Your task to perform on an android device: What's on my calendar tomorrow? Image 0: 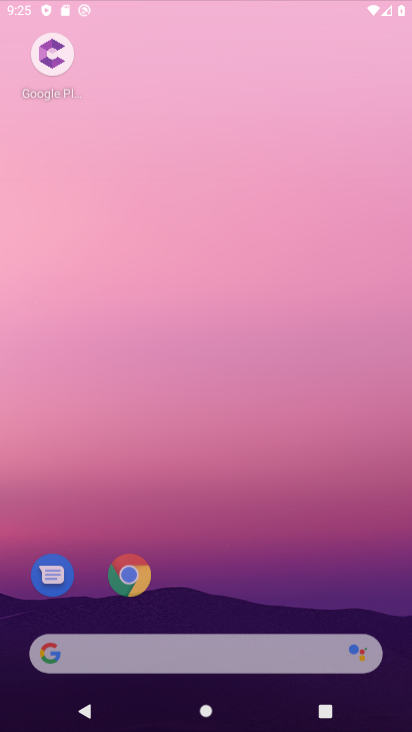
Step 0: drag from (352, 276) to (355, 119)
Your task to perform on an android device: What's on my calendar tomorrow? Image 1: 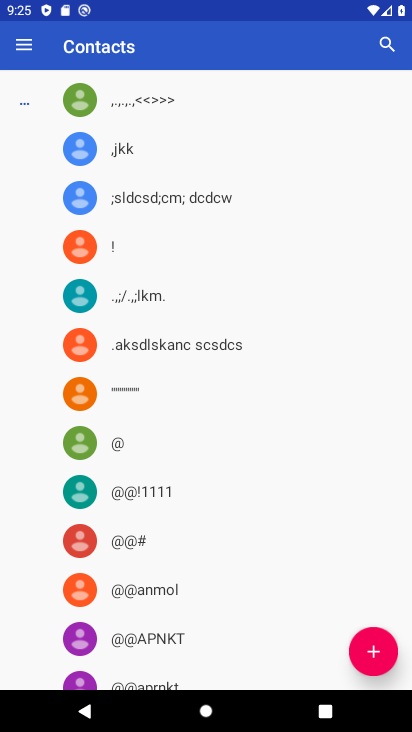
Step 1: press home button
Your task to perform on an android device: What's on my calendar tomorrow? Image 2: 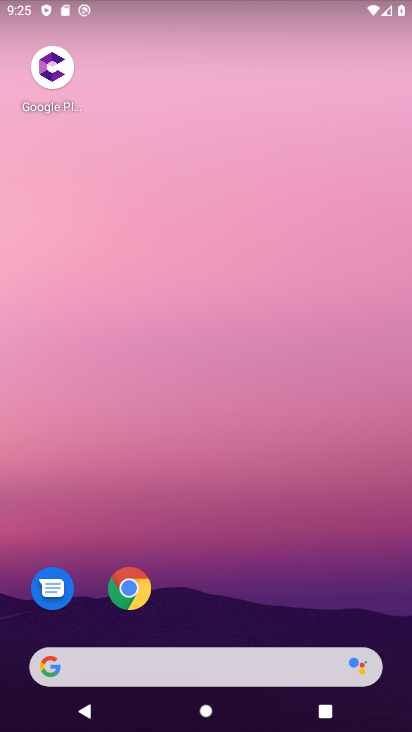
Step 2: drag from (344, 618) to (358, 229)
Your task to perform on an android device: What's on my calendar tomorrow? Image 3: 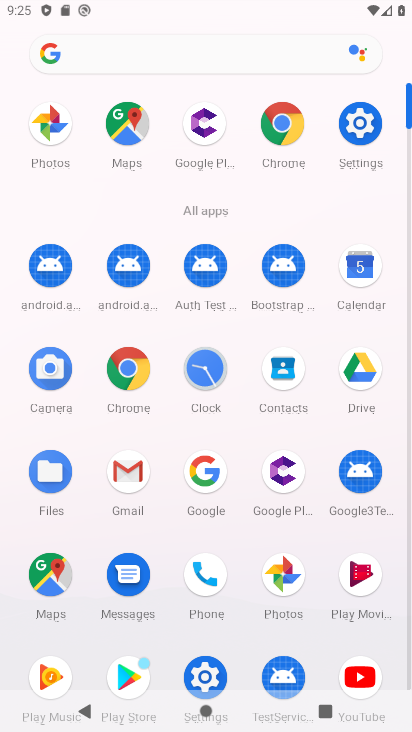
Step 3: click (355, 275)
Your task to perform on an android device: What's on my calendar tomorrow? Image 4: 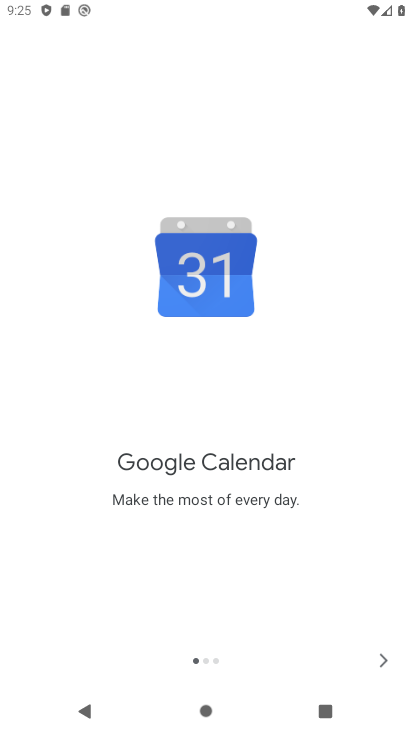
Step 4: click (385, 667)
Your task to perform on an android device: What's on my calendar tomorrow? Image 5: 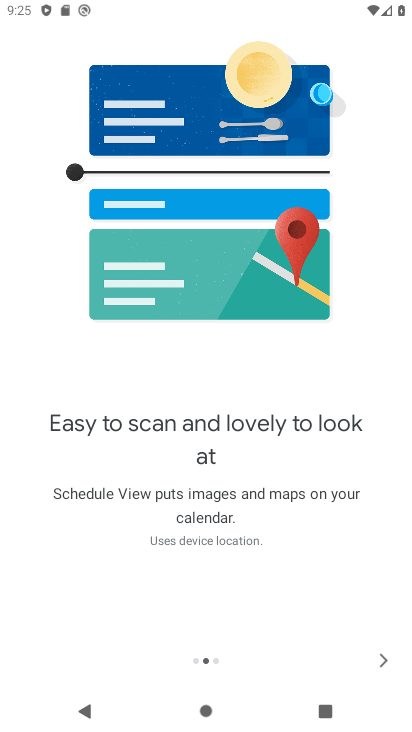
Step 5: click (385, 667)
Your task to perform on an android device: What's on my calendar tomorrow? Image 6: 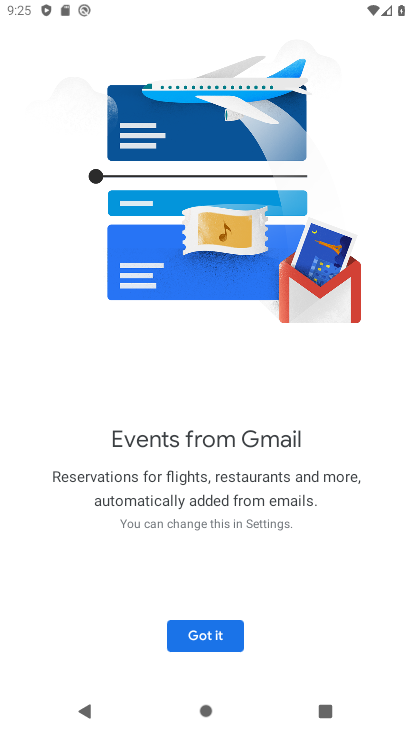
Step 6: click (226, 637)
Your task to perform on an android device: What's on my calendar tomorrow? Image 7: 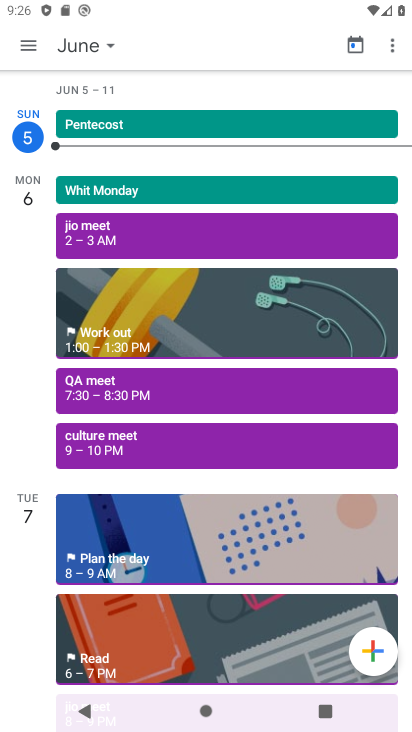
Step 7: drag from (270, 559) to (271, 382)
Your task to perform on an android device: What's on my calendar tomorrow? Image 8: 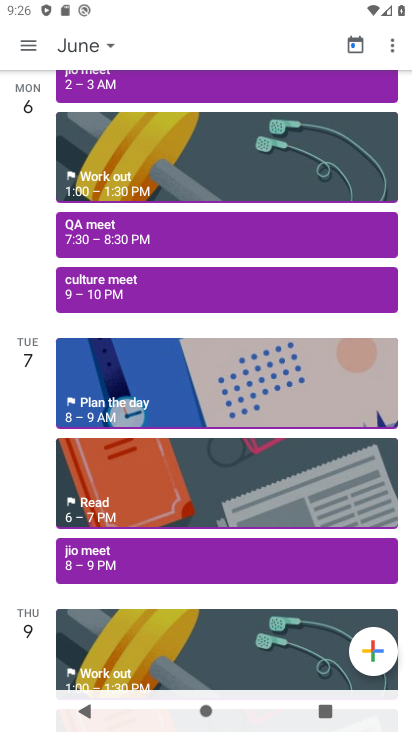
Step 8: drag from (265, 561) to (266, 334)
Your task to perform on an android device: What's on my calendar tomorrow? Image 9: 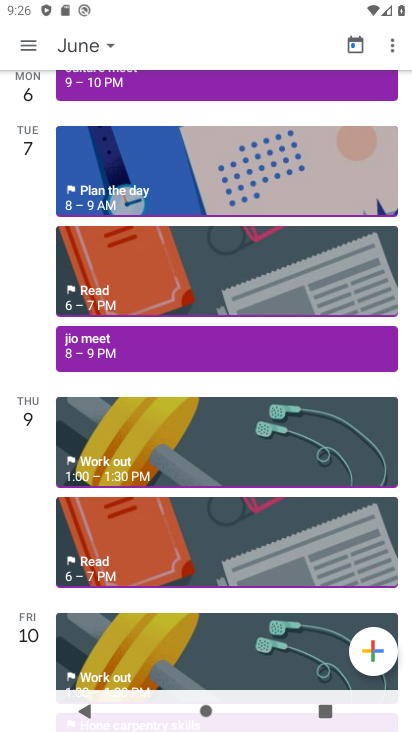
Step 9: click (211, 277)
Your task to perform on an android device: What's on my calendar tomorrow? Image 10: 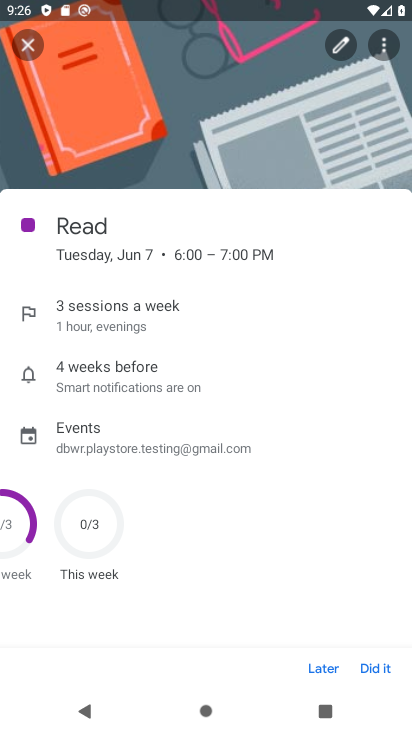
Step 10: task complete